Your task to perform on an android device: turn notification dots on Image 0: 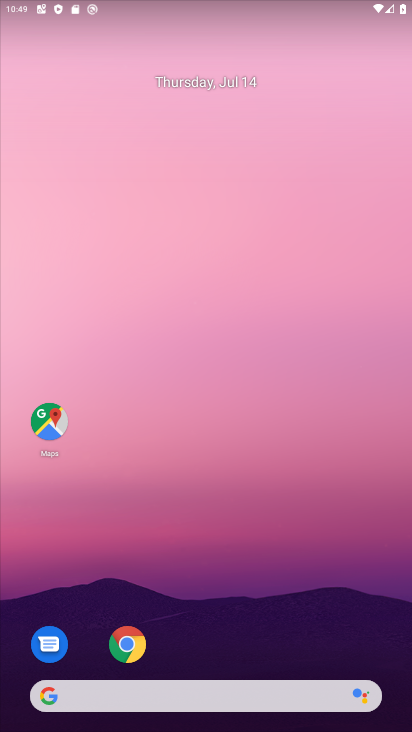
Step 0: drag from (216, 686) to (260, 1)
Your task to perform on an android device: turn notification dots on Image 1: 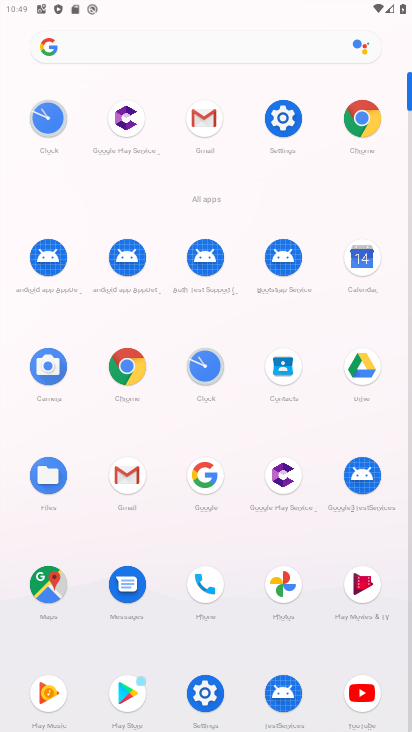
Step 1: click (286, 124)
Your task to perform on an android device: turn notification dots on Image 2: 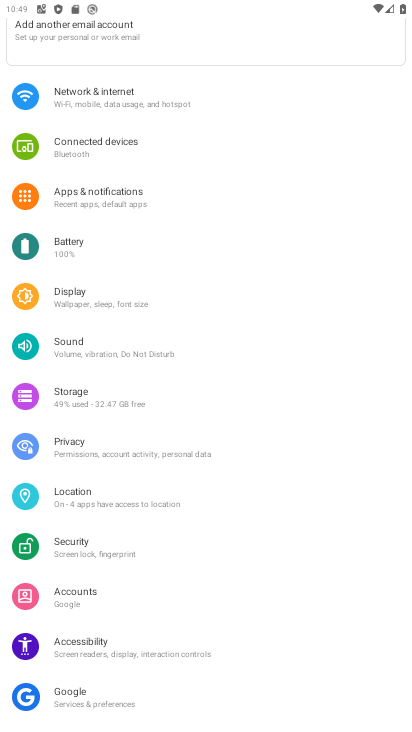
Step 2: click (139, 207)
Your task to perform on an android device: turn notification dots on Image 3: 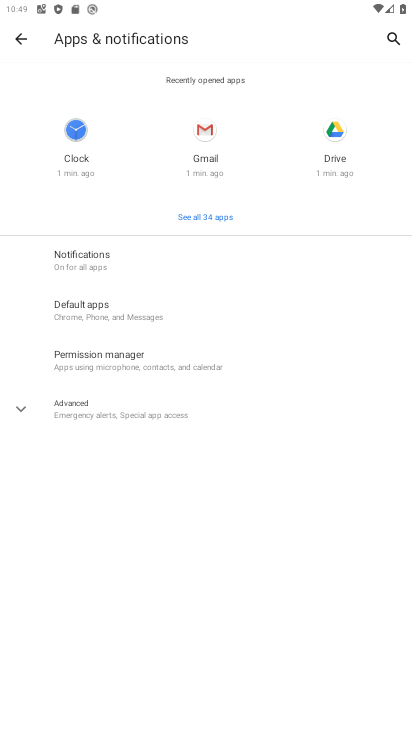
Step 3: click (96, 268)
Your task to perform on an android device: turn notification dots on Image 4: 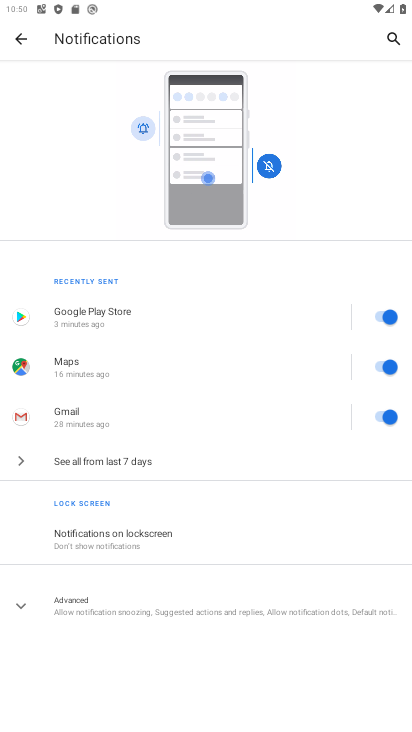
Step 4: click (116, 614)
Your task to perform on an android device: turn notification dots on Image 5: 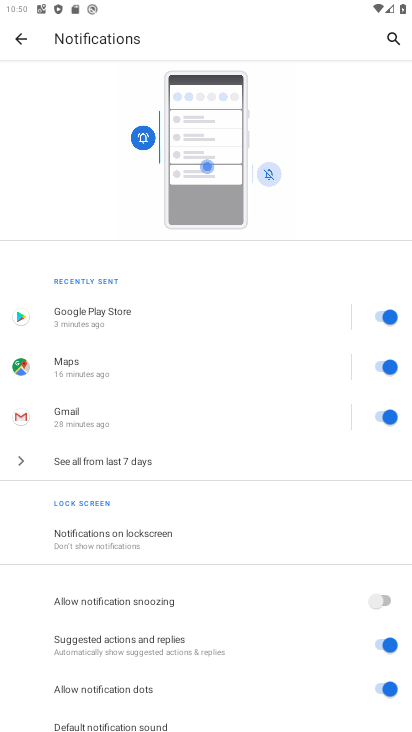
Step 5: task complete